Your task to perform on an android device: toggle show notifications on the lock screen Image 0: 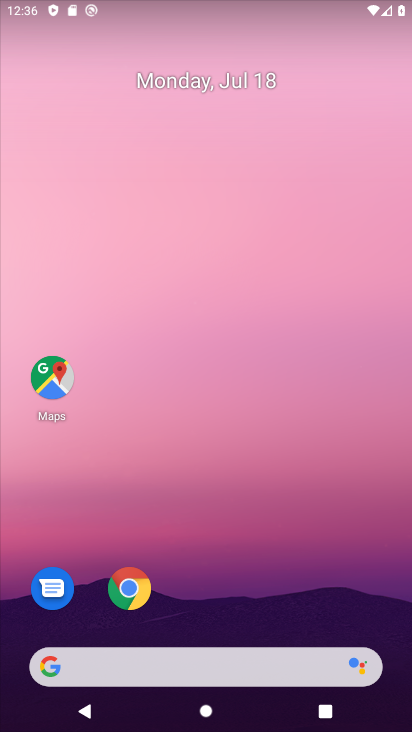
Step 0: click (205, 70)
Your task to perform on an android device: toggle show notifications on the lock screen Image 1: 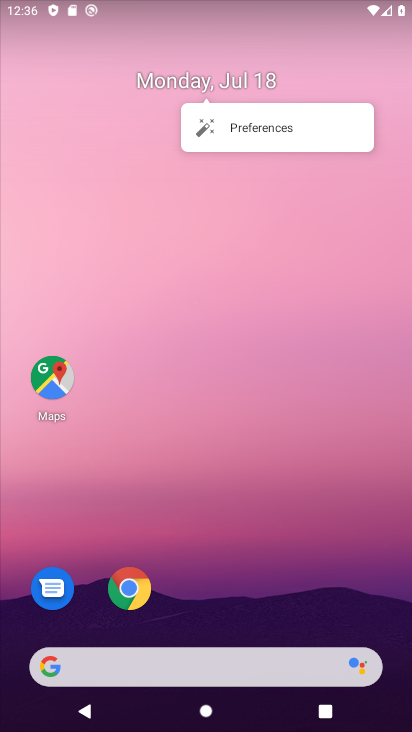
Step 1: click (266, 310)
Your task to perform on an android device: toggle show notifications on the lock screen Image 2: 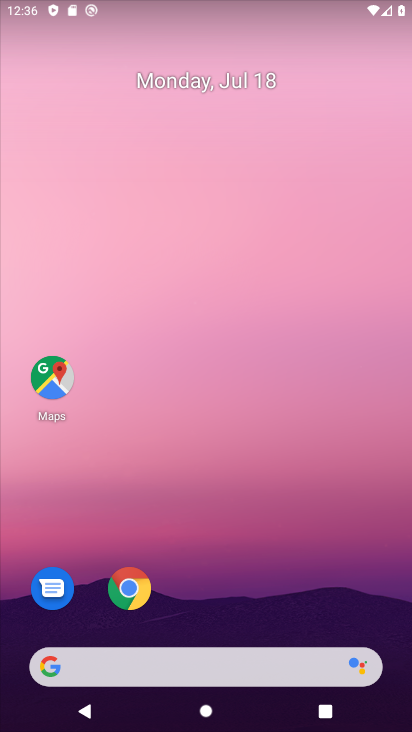
Step 2: drag from (272, 580) to (248, 7)
Your task to perform on an android device: toggle show notifications on the lock screen Image 3: 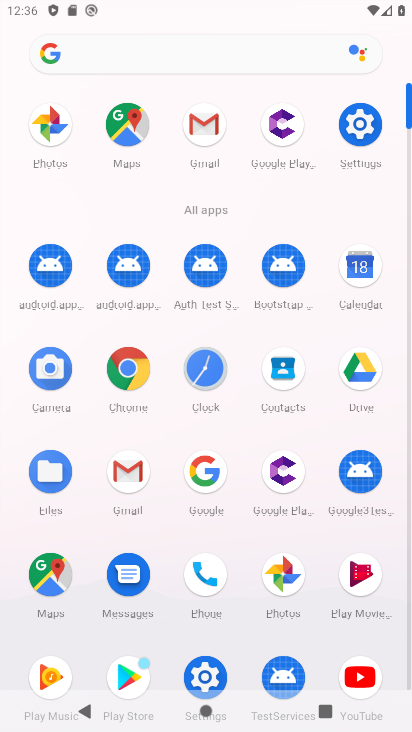
Step 3: click (365, 121)
Your task to perform on an android device: toggle show notifications on the lock screen Image 4: 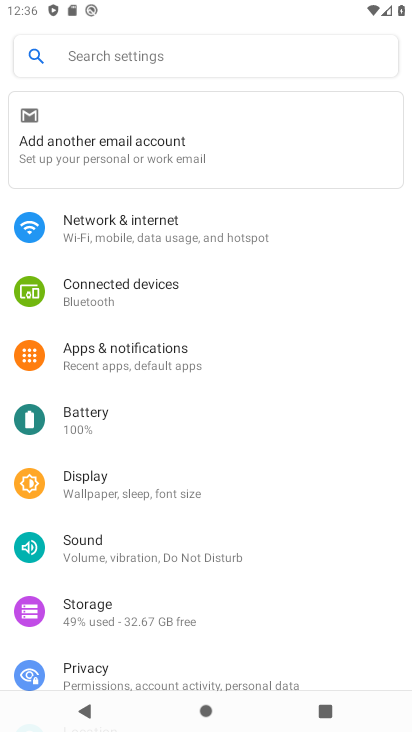
Step 4: click (157, 354)
Your task to perform on an android device: toggle show notifications on the lock screen Image 5: 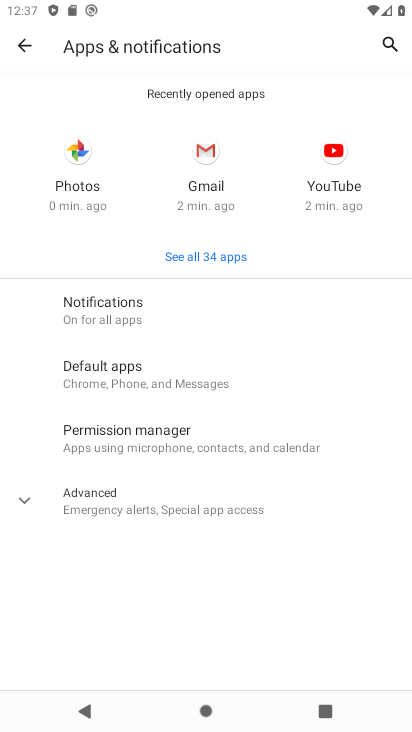
Step 5: click (137, 298)
Your task to perform on an android device: toggle show notifications on the lock screen Image 6: 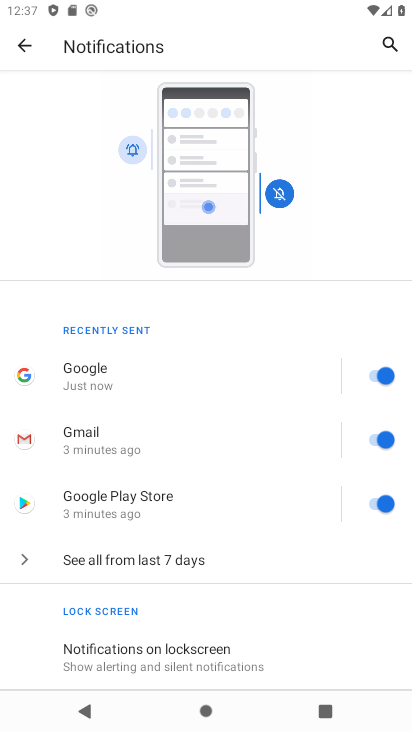
Step 6: click (72, 672)
Your task to perform on an android device: toggle show notifications on the lock screen Image 7: 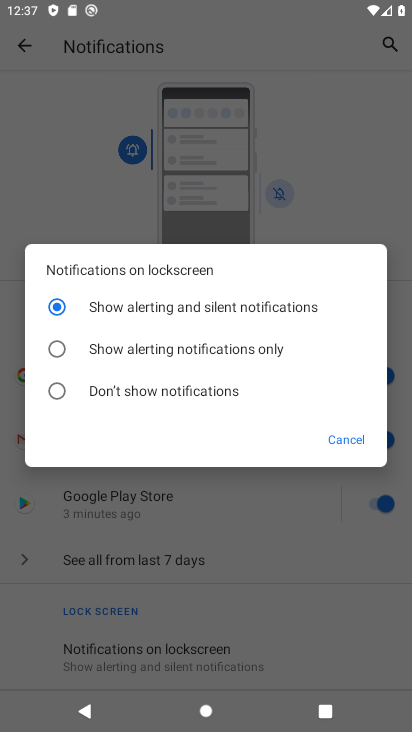
Step 7: click (148, 349)
Your task to perform on an android device: toggle show notifications on the lock screen Image 8: 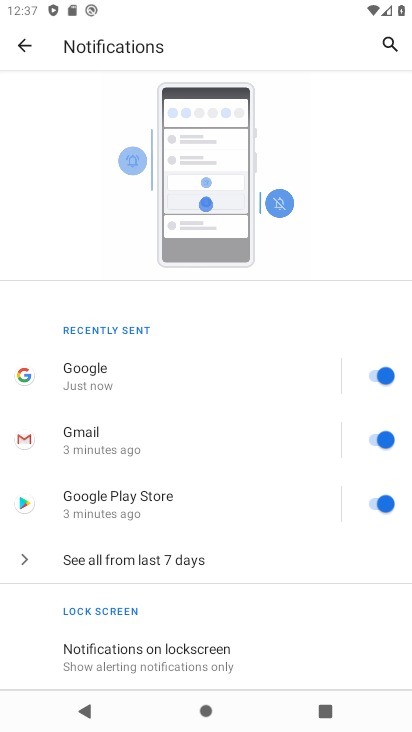
Step 8: task complete